Your task to perform on an android device: toggle translation in the chrome app Image 0: 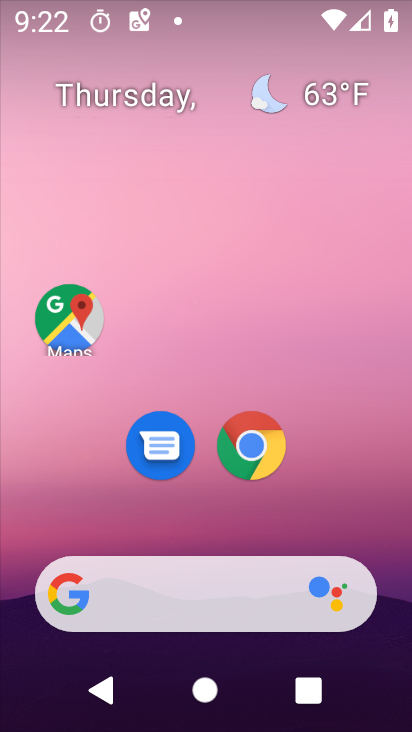
Step 0: drag from (276, 525) to (298, 150)
Your task to perform on an android device: toggle translation in the chrome app Image 1: 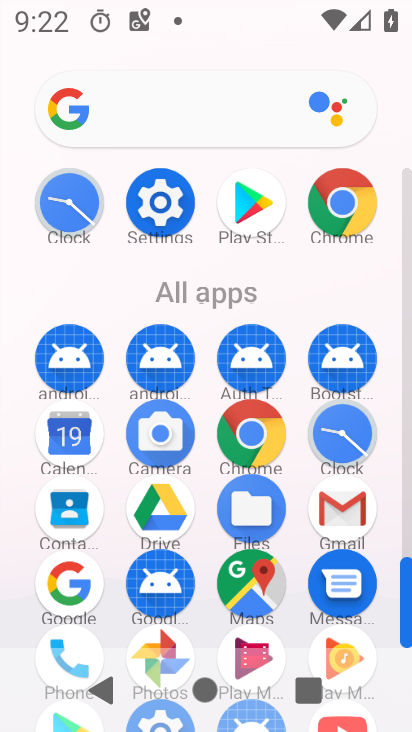
Step 1: click (263, 433)
Your task to perform on an android device: toggle translation in the chrome app Image 2: 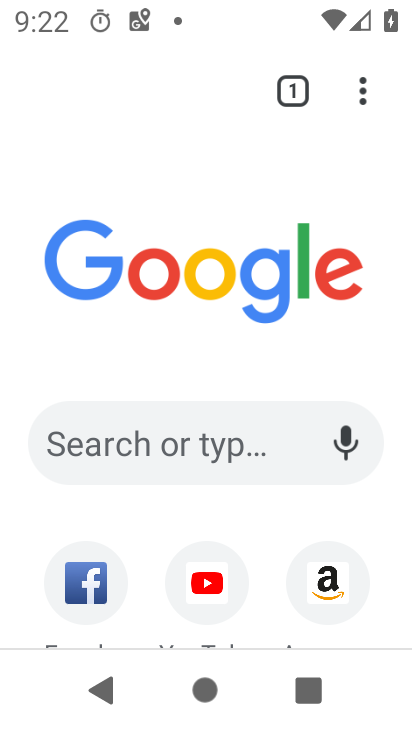
Step 2: click (357, 88)
Your task to perform on an android device: toggle translation in the chrome app Image 3: 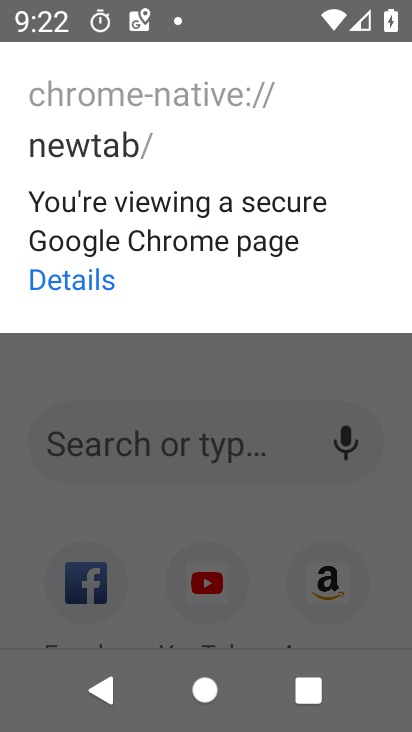
Step 3: click (330, 384)
Your task to perform on an android device: toggle translation in the chrome app Image 4: 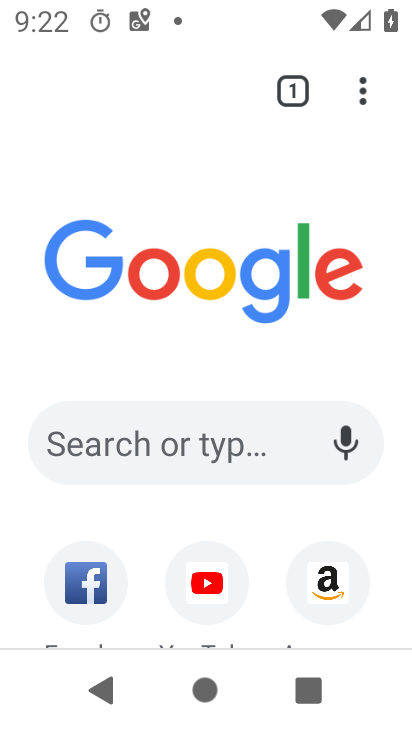
Step 4: click (365, 99)
Your task to perform on an android device: toggle translation in the chrome app Image 5: 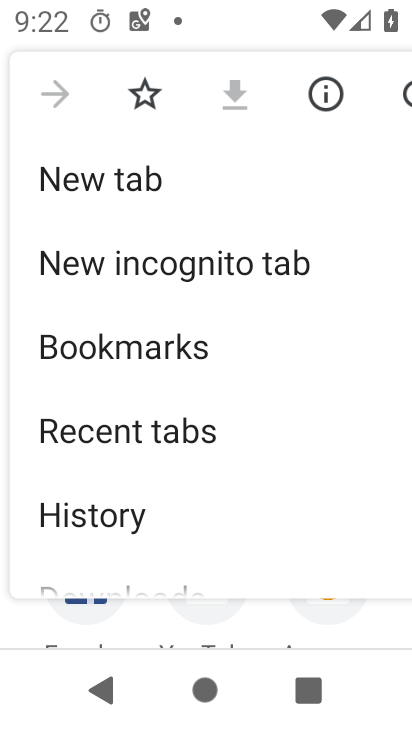
Step 5: drag from (234, 453) to (203, 131)
Your task to perform on an android device: toggle translation in the chrome app Image 6: 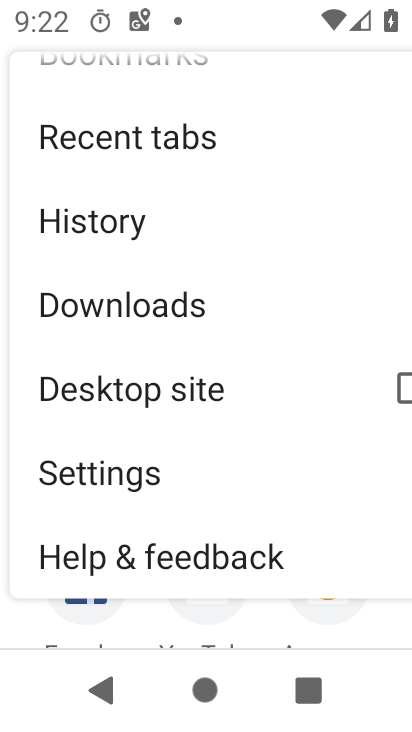
Step 6: drag from (151, 494) to (161, 342)
Your task to perform on an android device: toggle translation in the chrome app Image 7: 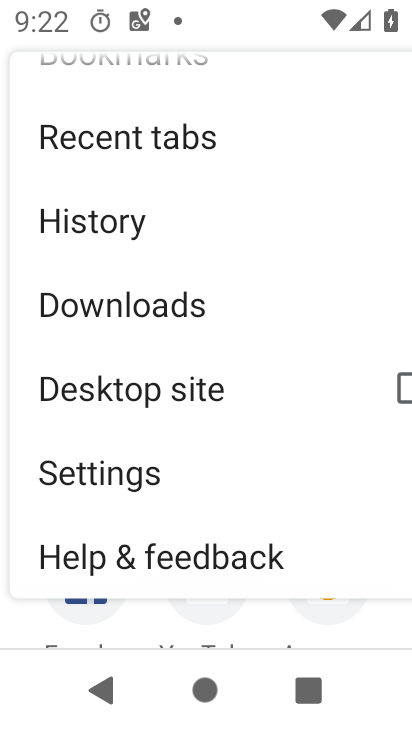
Step 7: click (179, 483)
Your task to perform on an android device: toggle translation in the chrome app Image 8: 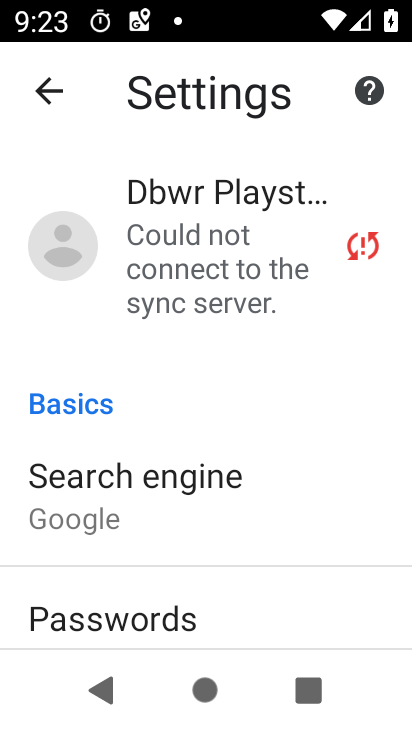
Step 8: drag from (157, 584) to (202, 233)
Your task to perform on an android device: toggle translation in the chrome app Image 9: 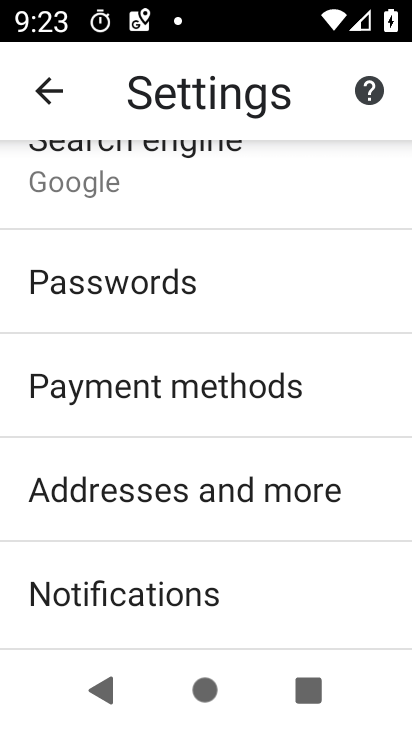
Step 9: drag from (164, 593) to (207, 327)
Your task to perform on an android device: toggle translation in the chrome app Image 10: 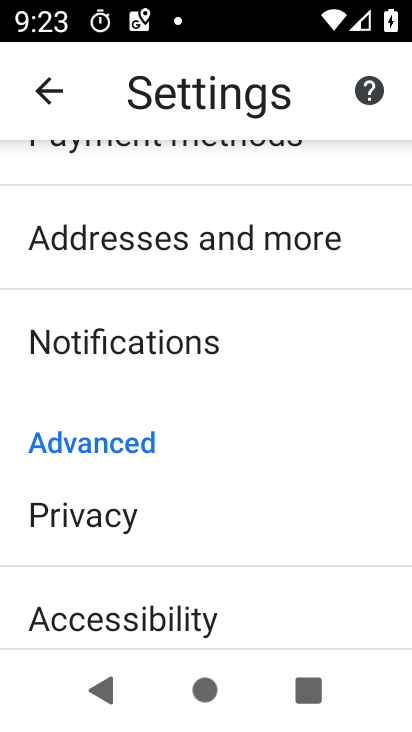
Step 10: drag from (192, 552) to (193, 367)
Your task to perform on an android device: toggle translation in the chrome app Image 11: 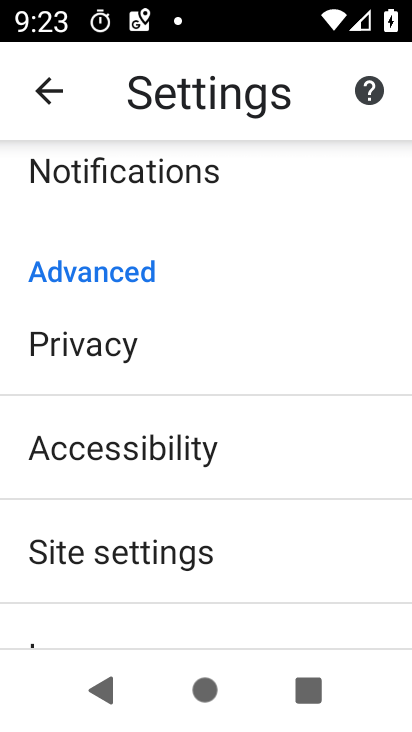
Step 11: drag from (207, 393) to (243, 260)
Your task to perform on an android device: toggle translation in the chrome app Image 12: 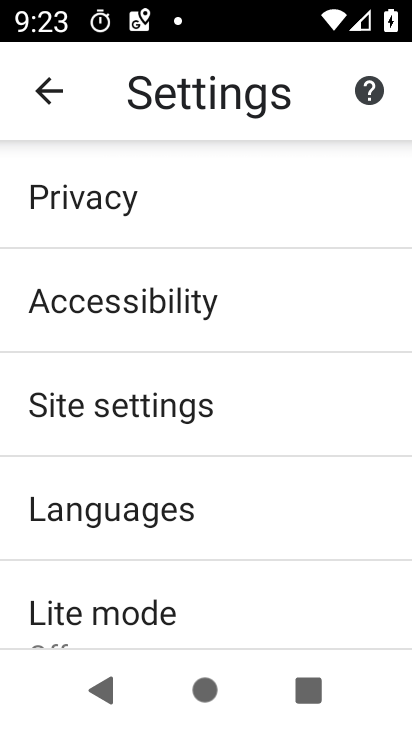
Step 12: click (183, 505)
Your task to perform on an android device: toggle translation in the chrome app Image 13: 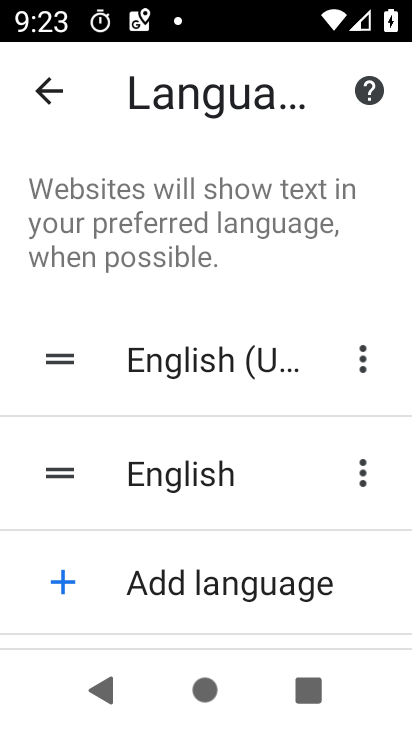
Step 13: drag from (240, 598) to (230, 350)
Your task to perform on an android device: toggle translation in the chrome app Image 14: 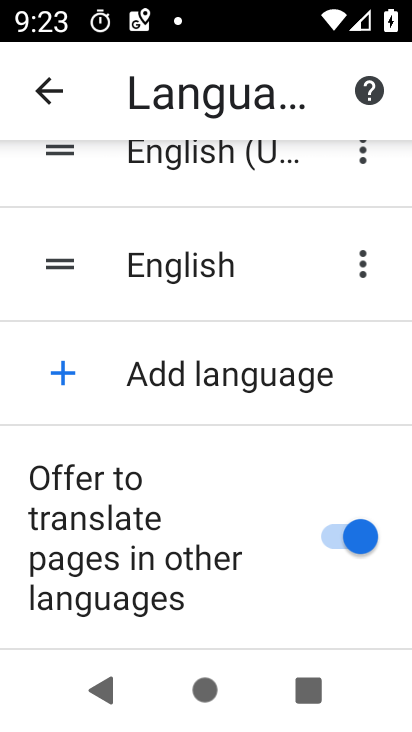
Step 14: click (336, 542)
Your task to perform on an android device: toggle translation in the chrome app Image 15: 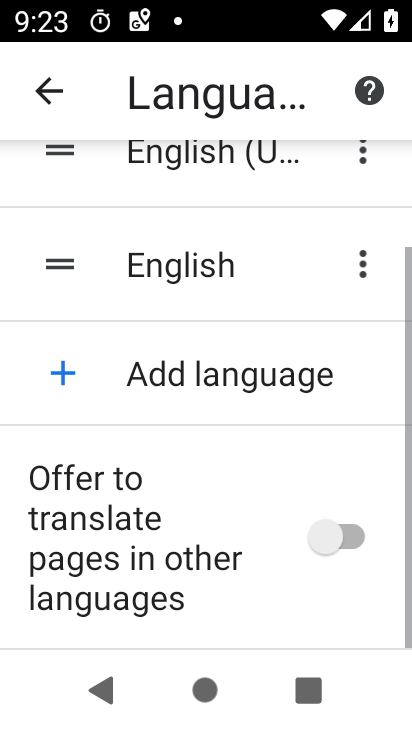
Step 15: task complete